Your task to perform on an android device: Open ESPN.com Image 0: 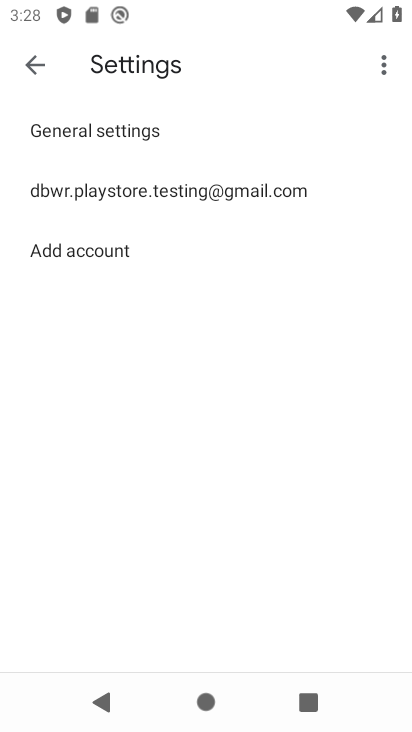
Step 0: press back button
Your task to perform on an android device: Open ESPN.com Image 1: 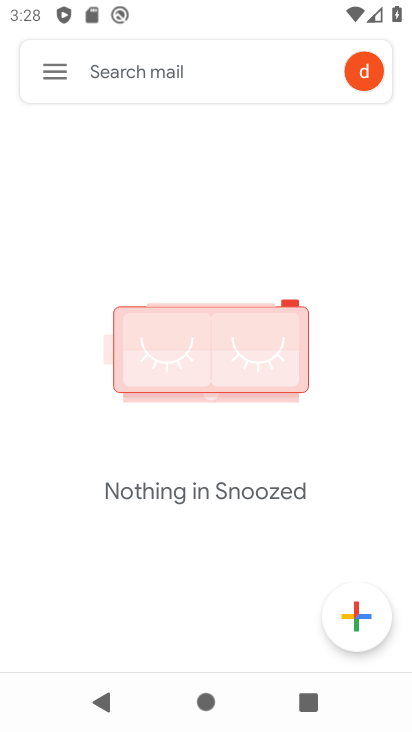
Step 1: press back button
Your task to perform on an android device: Open ESPN.com Image 2: 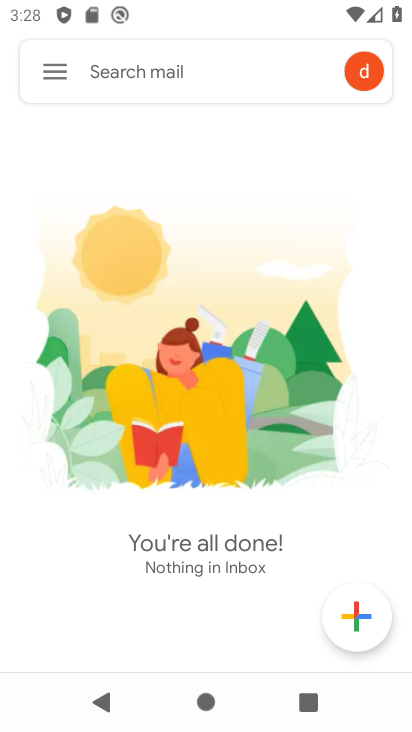
Step 2: press back button
Your task to perform on an android device: Open ESPN.com Image 3: 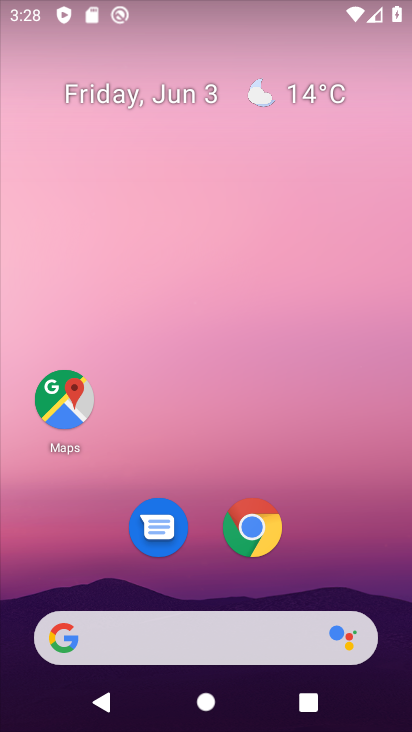
Step 3: click (254, 528)
Your task to perform on an android device: Open ESPN.com Image 4: 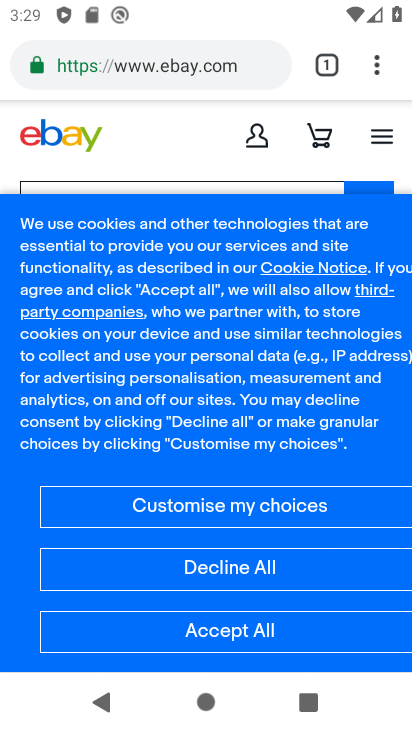
Step 4: click (243, 61)
Your task to perform on an android device: Open ESPN.com Image 5: 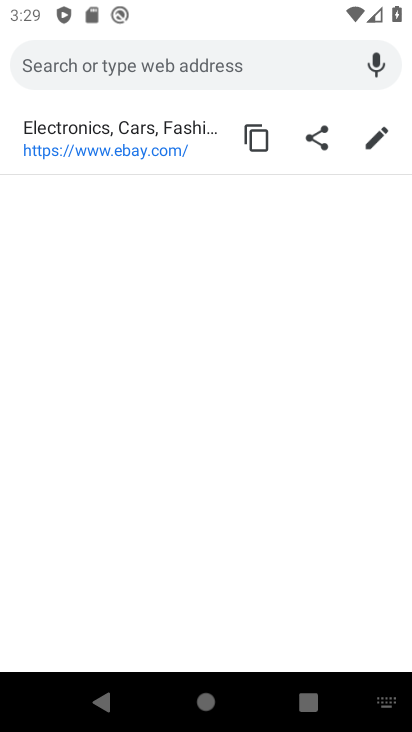
Step 5: type "ESPN.com"
Your task to perform on an android device: Open ESPN.com Image 6: 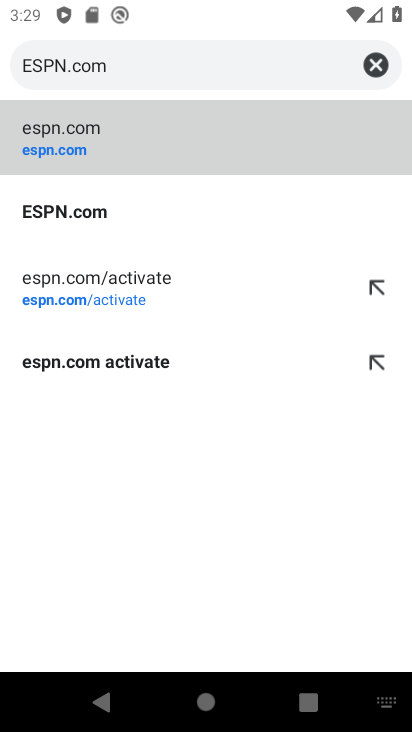
Step 6: click (30, 202)
Your task to perform on an android device: Open ESPN.com Image 7: 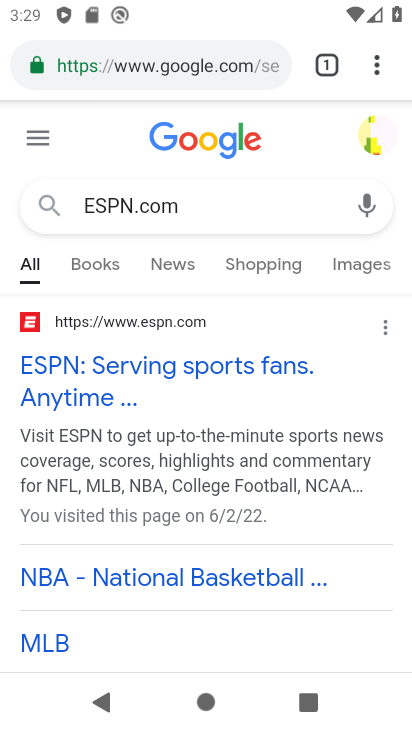
Step 7: click (120, 362)
Your task to perform on an android device: Open ESPN.com Image 8: 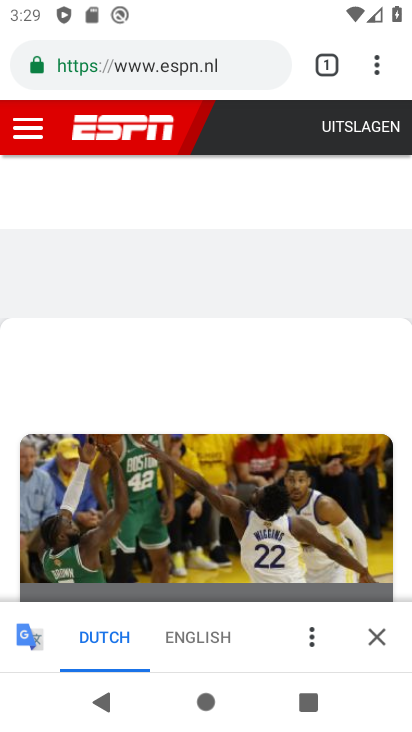
Step 8: task complete